Your task to perform on an android device: toggle notification dots Image 0: 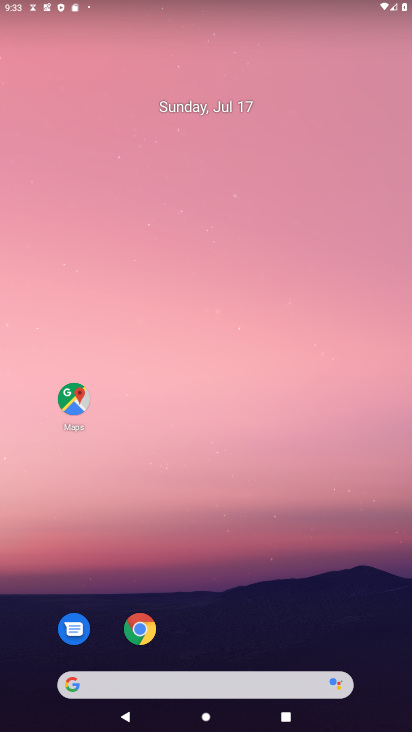
Step 0: drag from (225, 720) to (215, 137)
Your task to perform on an android device: toggle notification dots Image 1: 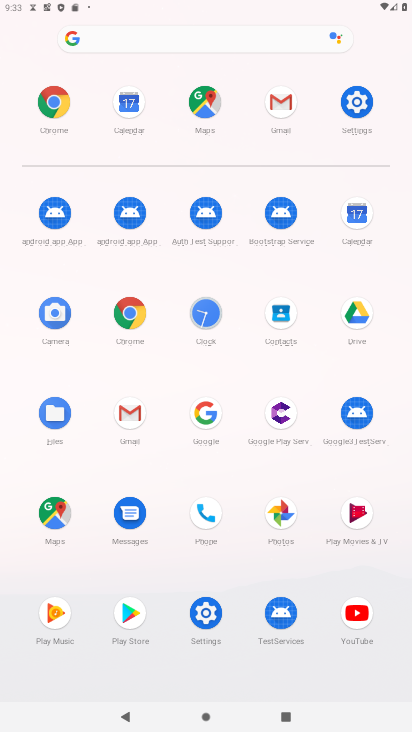
Step 1: click (355, 103)
Your task to perform on an android device: toggle notification dots Image 2: 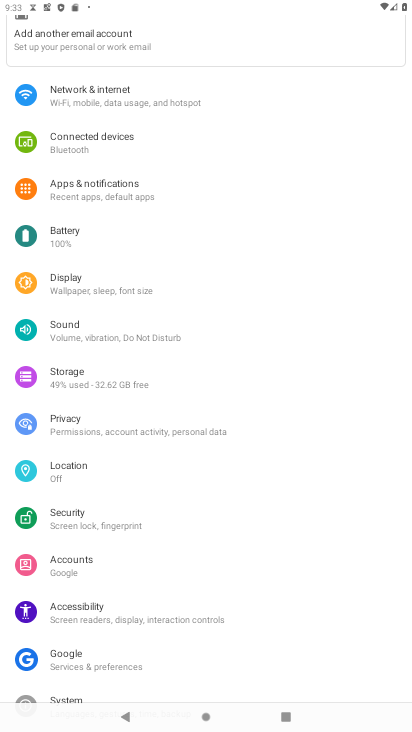
Step 2: click (90, 188)
Your task to perform on an android device: toggle notification dots Image 3: 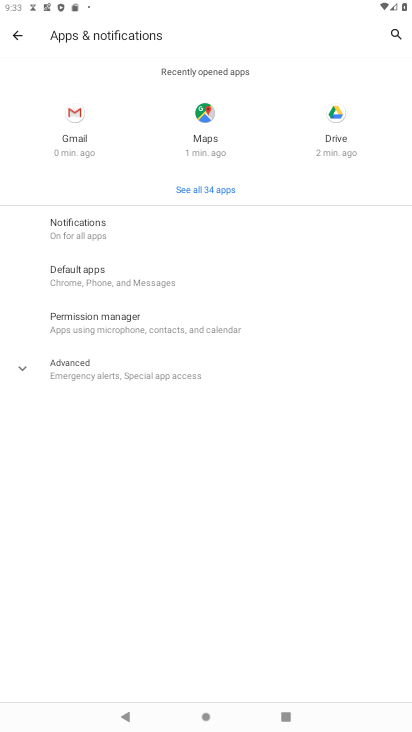
Step 3: click (84, 222)
Your task to perform on an android device: toggle notification dots Image 4: 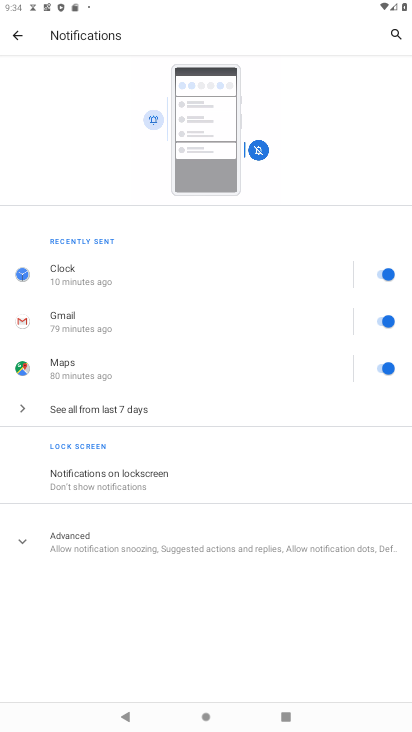
Step 4: click (110, 545)
Your task to perform on an android device: toggle notification dots Image 5: 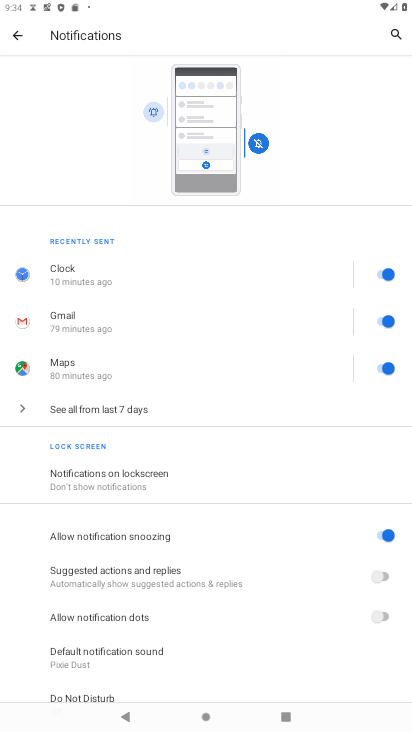
Step 5: click (382, 613)
Your task to perform on an android device: toggle notification dots Image 6: 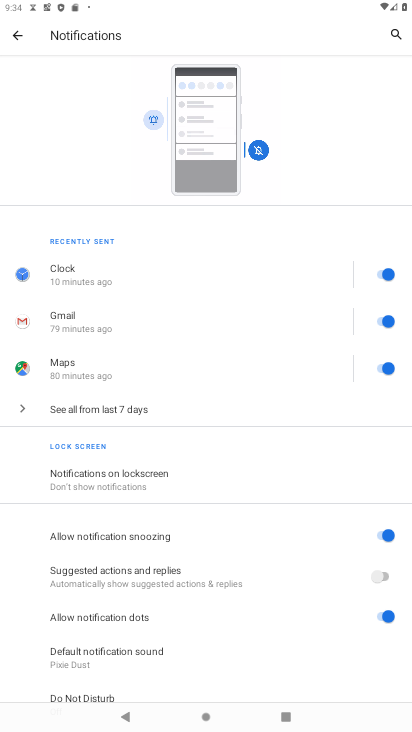
Step 6: task complete